Your task to perform on an android device: Show me popular games on the Play Store Image 0: 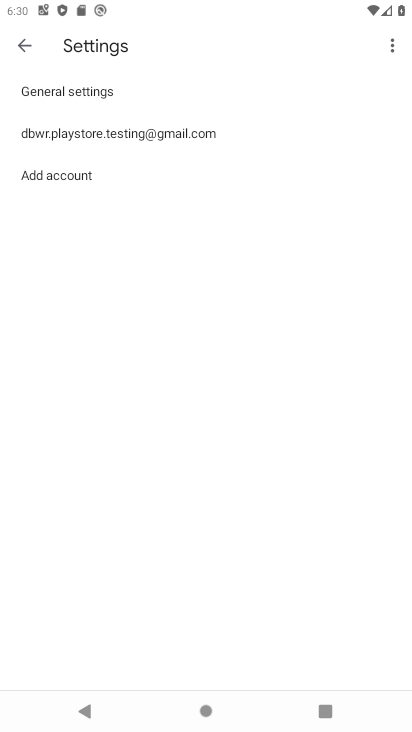
Step 0: press home button
Your task to perform on an android device: Show me popular games on the Play Store Image 1: 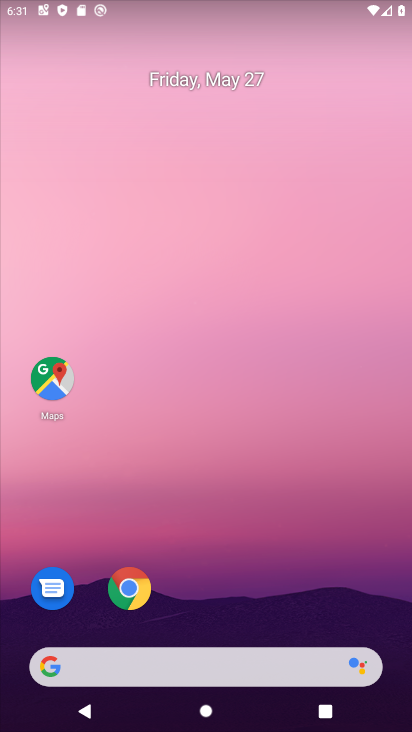
Step 1: drag from (200, 576) to (372, 4)
Your task to perform on an android device: Show me popular games on the Play Store Image 2: 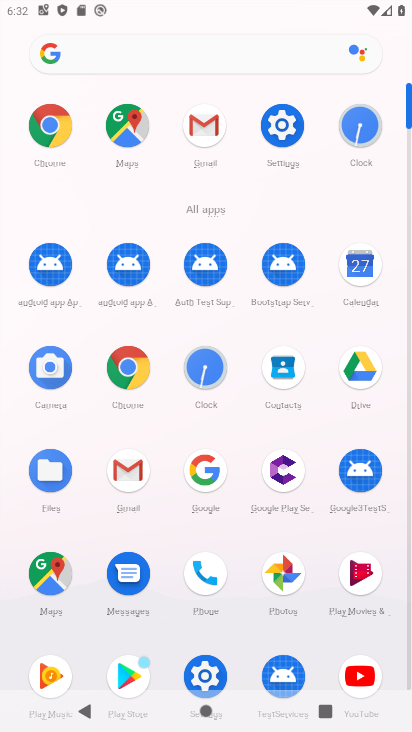
Step 2: click (131, 665)
Your task to perform on an android device: Show me popular games on the Play Store Image 3: 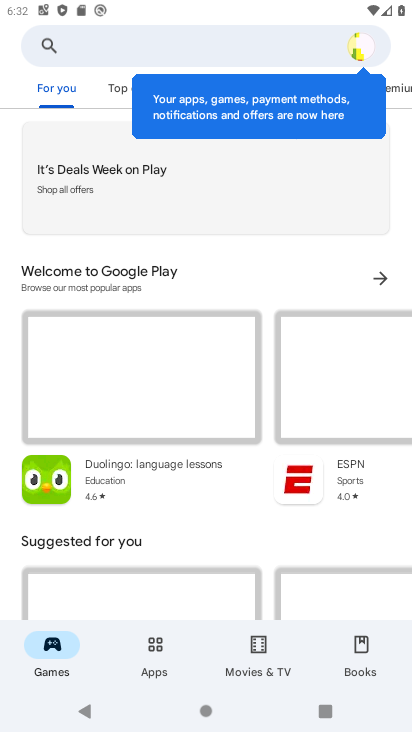
Step 3: click (170, 41)
Your task to perform on an android device: Show me popular games on the Play Store Image 4: 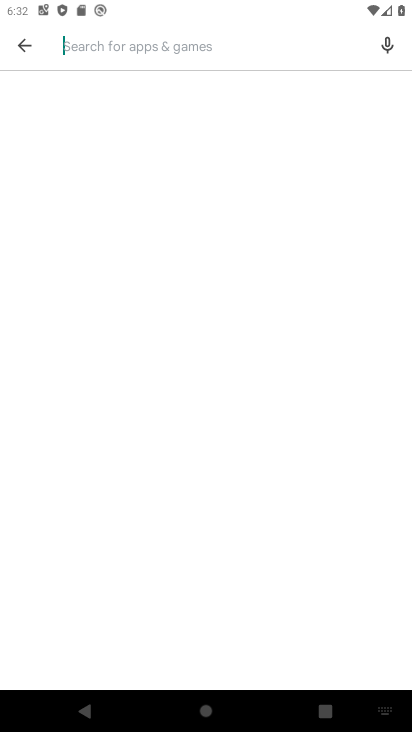
Step 4: click (170, 37)
Your task to perform on an android device: Show me popular games on the Play Store Image 5: 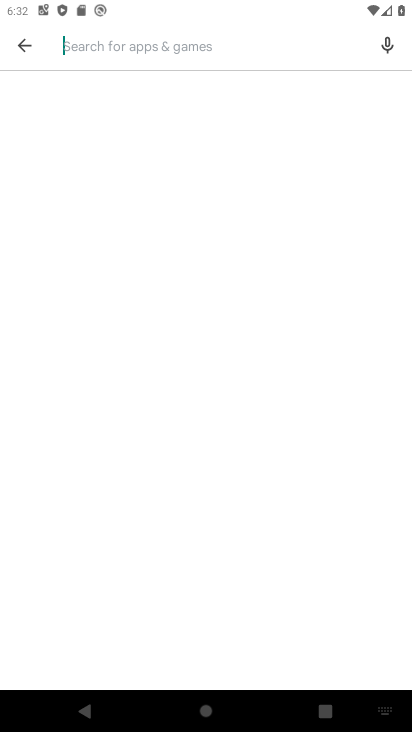
Step 5: type "popular games"
Your task to perform on an android device: Show me popular games on the Play Store Image 6: 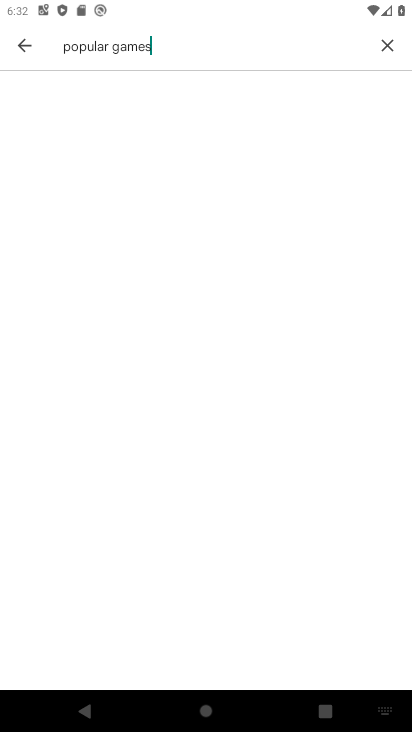
Step 6: type ""
Your task to perform on an android device: Show me popular games on the Play Store Image 7: 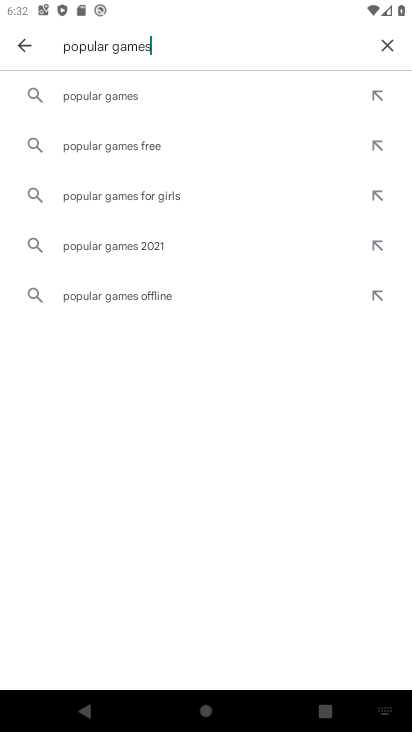
Step 7: click (128, 98)
Your task to perform on an android device: Show me popular games on the Play Store Image 8: 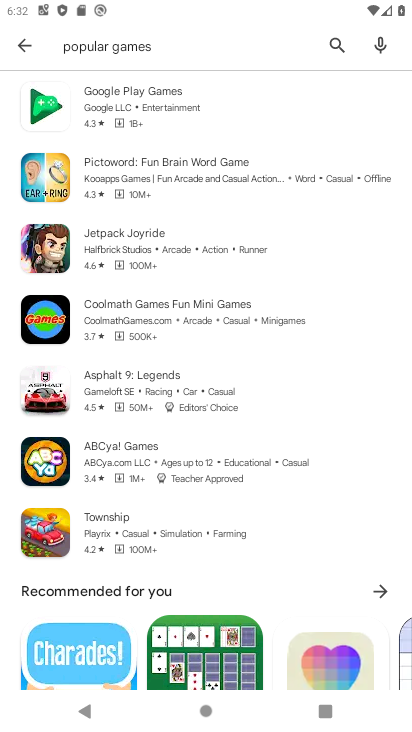
Step 8: task complete